Your task to perform on an android device: add a contact in the contacts app Image 0: 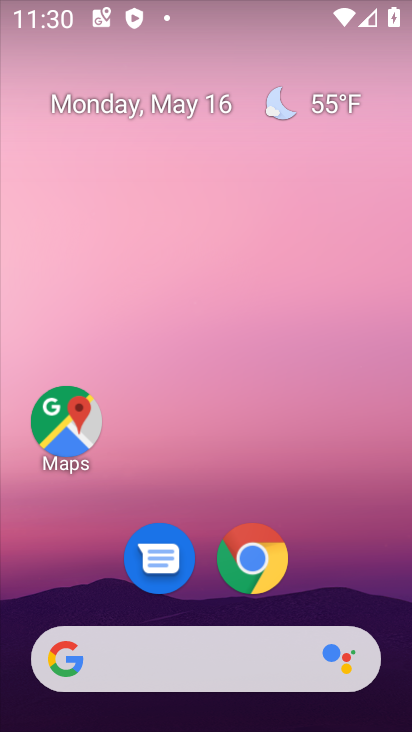
Step 0: drag from (200, 486) to (193, 121)
Your task to perform on an android device: add a contact in the contacts app Image 1: 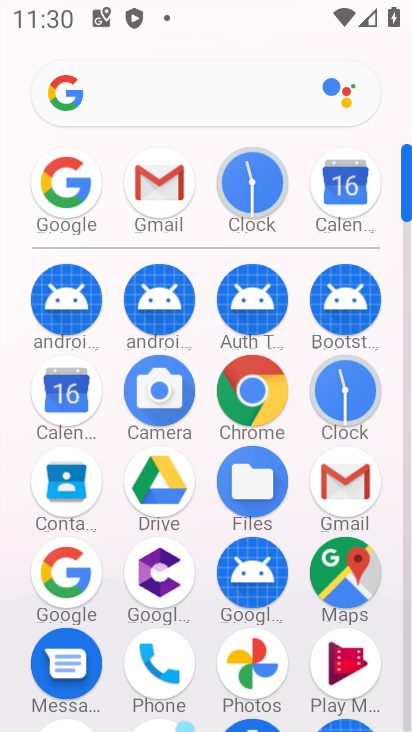
Step 1: click (68, 485)
Your task to perform on an android device: add a contact in the contacts app Image 2: 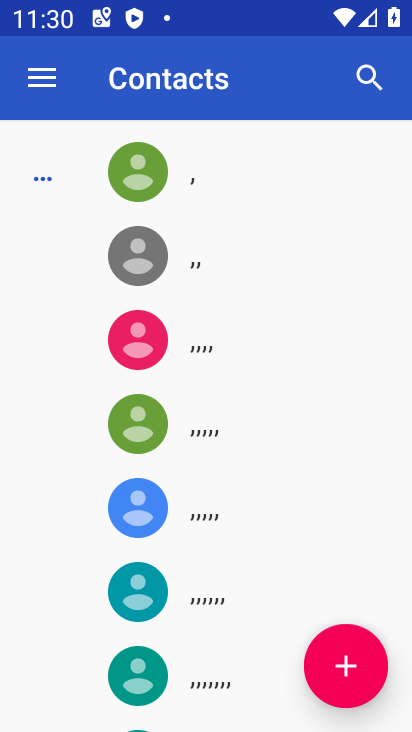
Step 2: click (351, 664)
Your task to perform on an android device: add a contact in the contacts app Image 3: 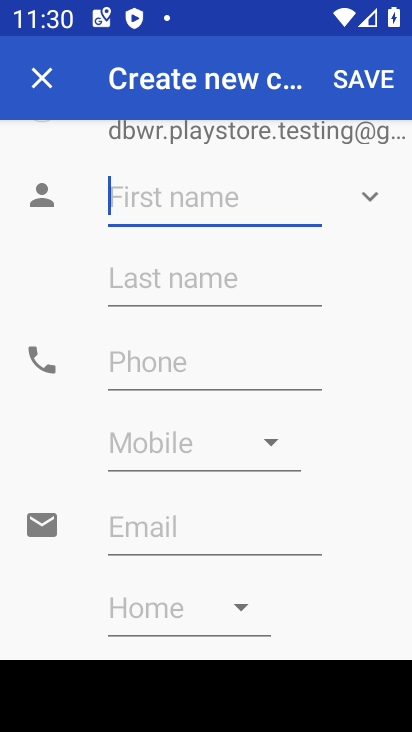
Step 3: type "yufy"
Your task to perform on an android device: add a contact in the contacts app Image 4: 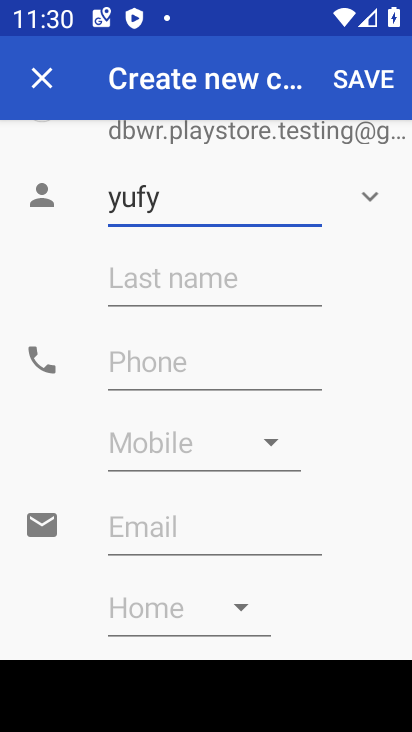
Step 4: click (360, 83)
Your task to perform on an android device: add a contact in the contacts app Image 5: 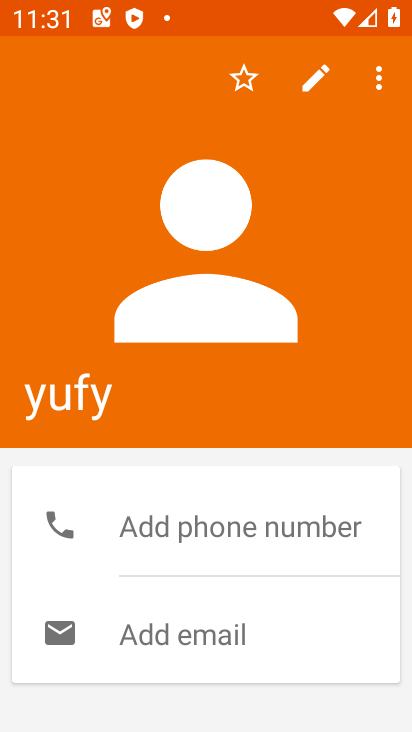
Step 5: task complete